Your task to perform on an android device: install app "Adobe Acrobat Reader: Edit PDF" Image 0: 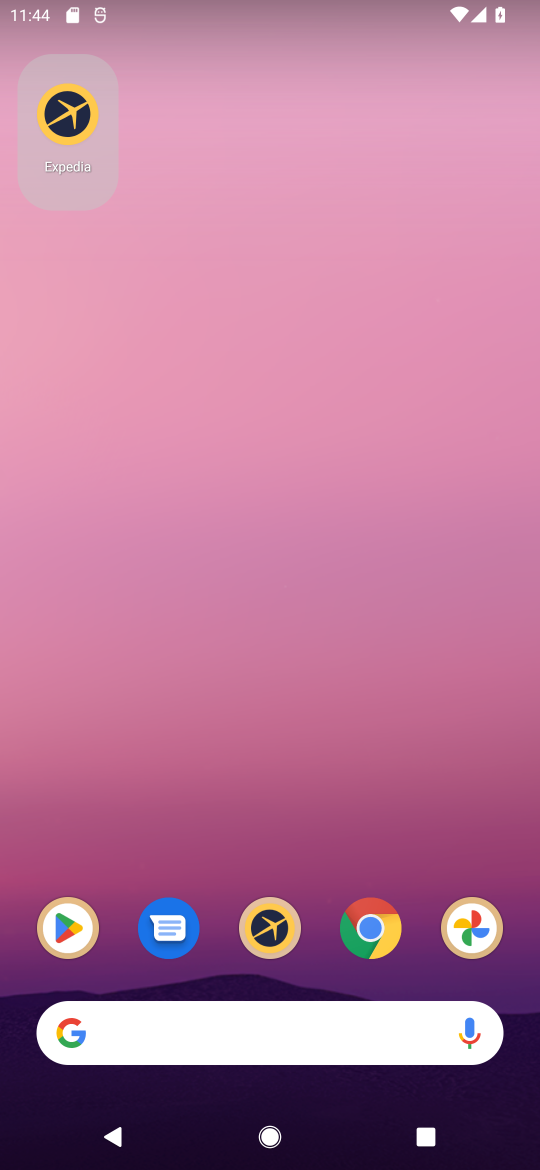
Step 0: drag from (437, 748) to (342, 3)
Your task to perform on an android device: install app "Adobe Acrobat Reader: Edit PDF" Image 1: 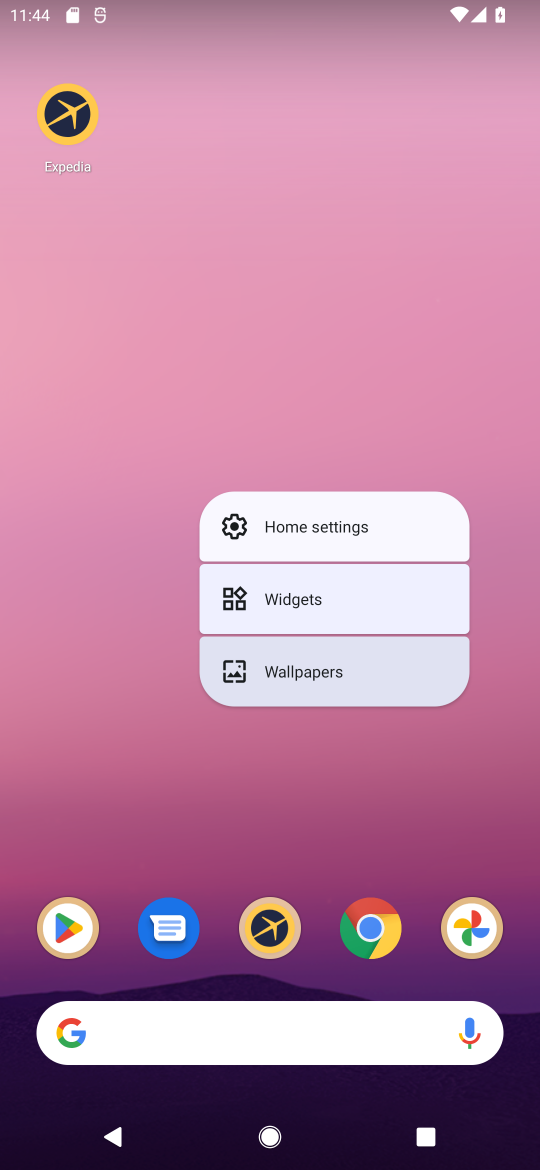
Step 1: click (265, 793)
Your task to perform on an android device: install app "Adobe Acrobat Reader: Edit PDF" Image 2: 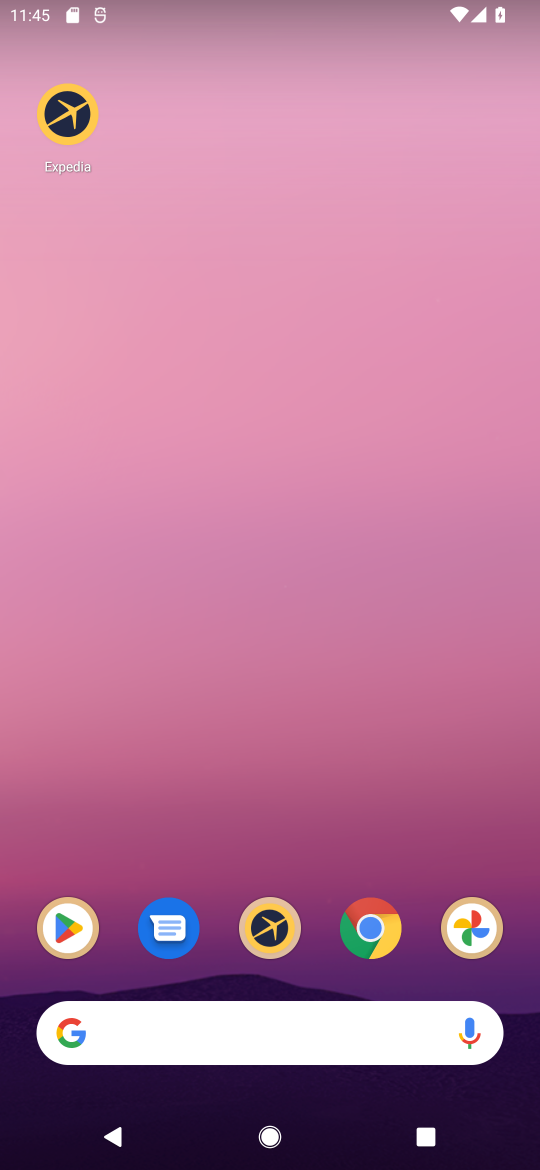
Step 2: drag from (316, 878) to (393, 72)
Your task to perform on an android device: install app "Adobe Acrobat Reader: Edit PDF" Image 3: 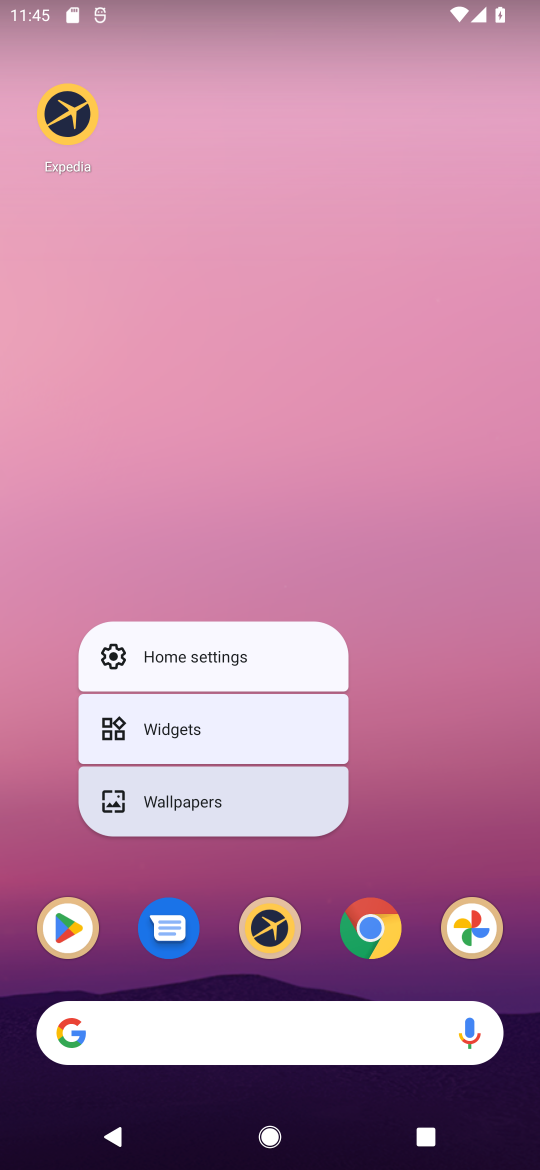
Step 3: click (439, 465)
Your task to perform on an android device: install app "Adobe Acrobat Reader: Edit PDF" Image 4: 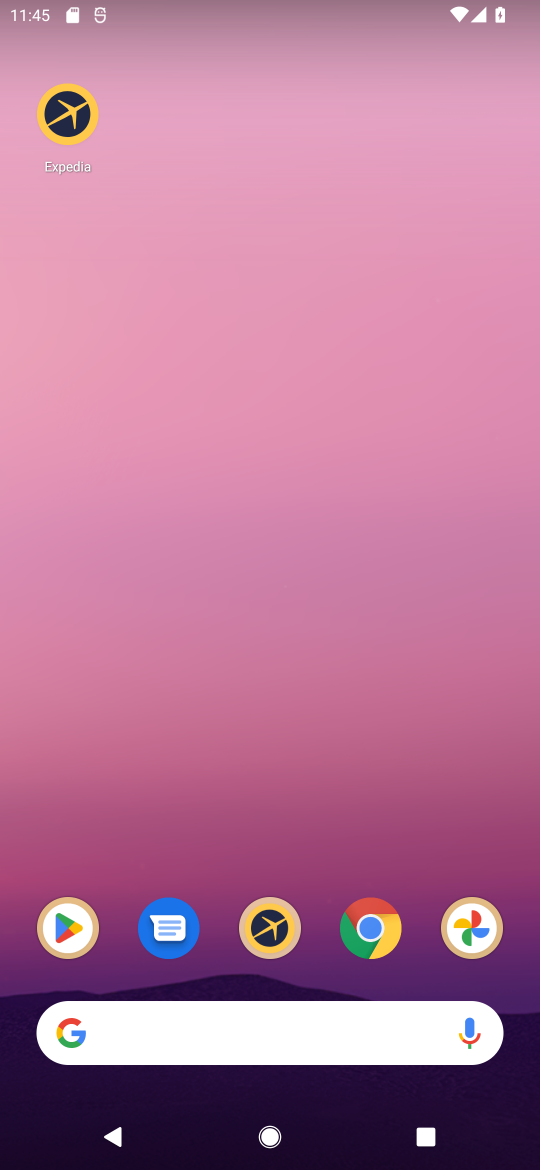
Step 4: drag from (521, 1080) to (441, 127)
Your task to perform on an android device: install app "Adobe Acrobat Reader: Edit PDF" Image 5: 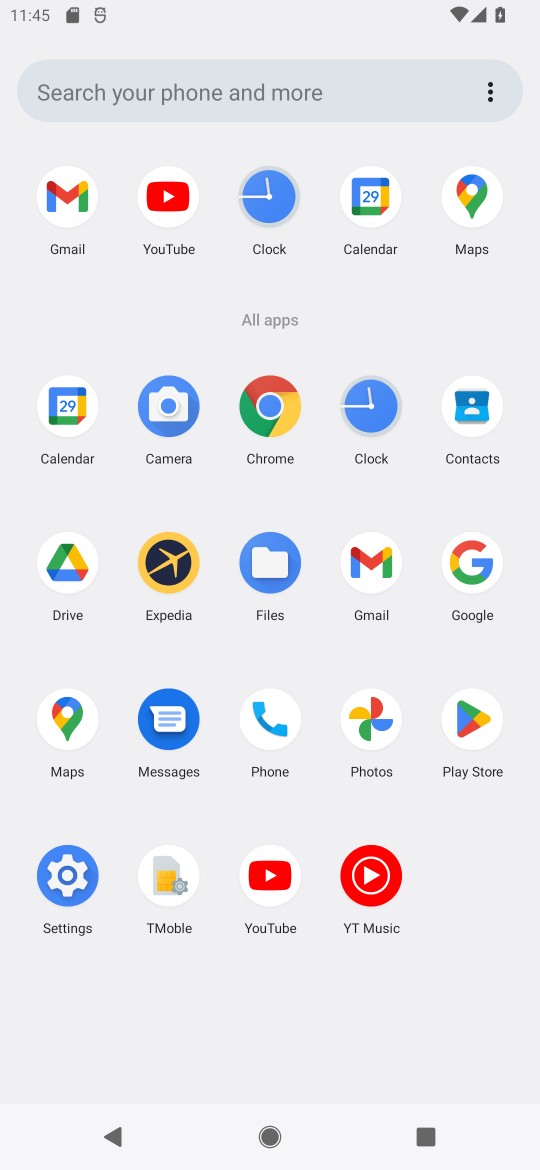
Step 5: click (481, 704)
Your task to perform on an android device: install app "Adobe Acrobat Reader: Edit PDF" Image 6: 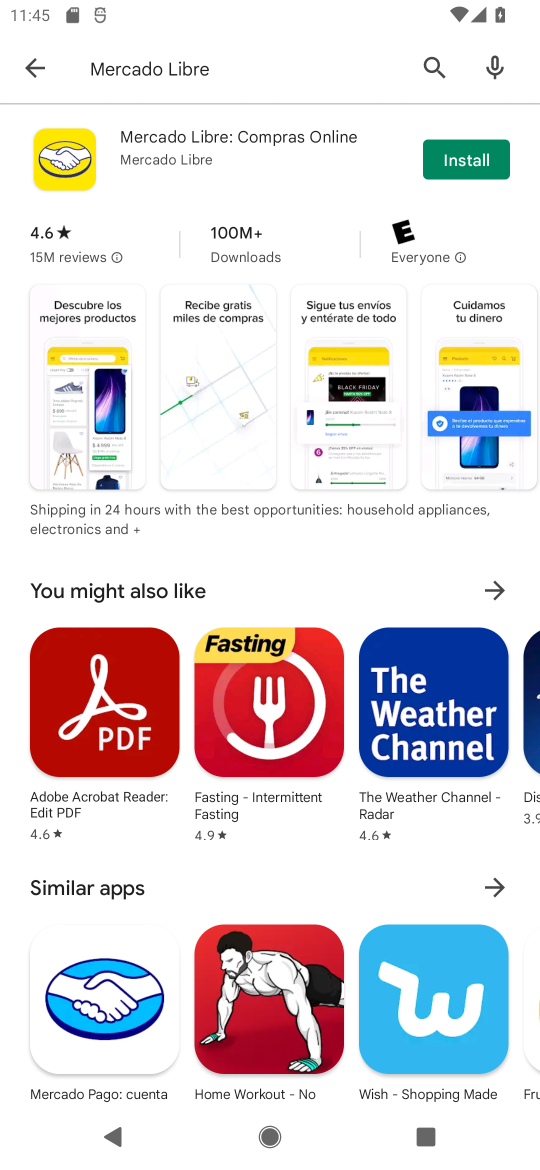
Step 6: click (257, 84)
Your task to perform on an android device: install app "Adobe Acrobat Reader: Edit PDF" Image 7: 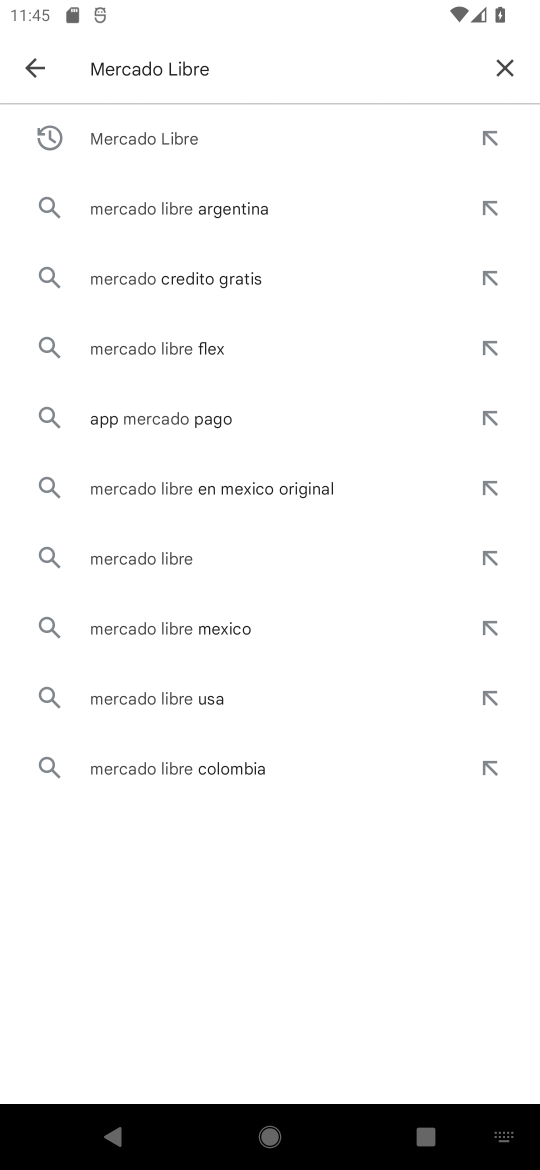
Step 7: click (506, 65)
Your task to perform on an android device: install app "Adobe Acrobat Reader: Edit PDF" Image 8: 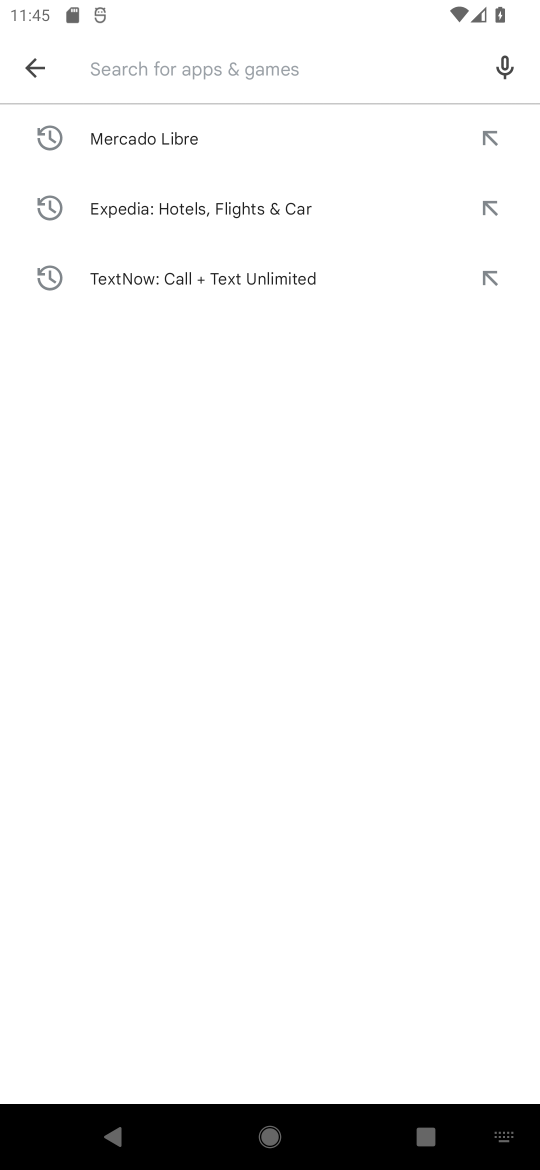
Step 8: type "Adobe Acrobat Reader: Edit PDF"
Your task to perform on an android device: install app "Adobe Acrobat Reader: Edit PDF" Image 9: 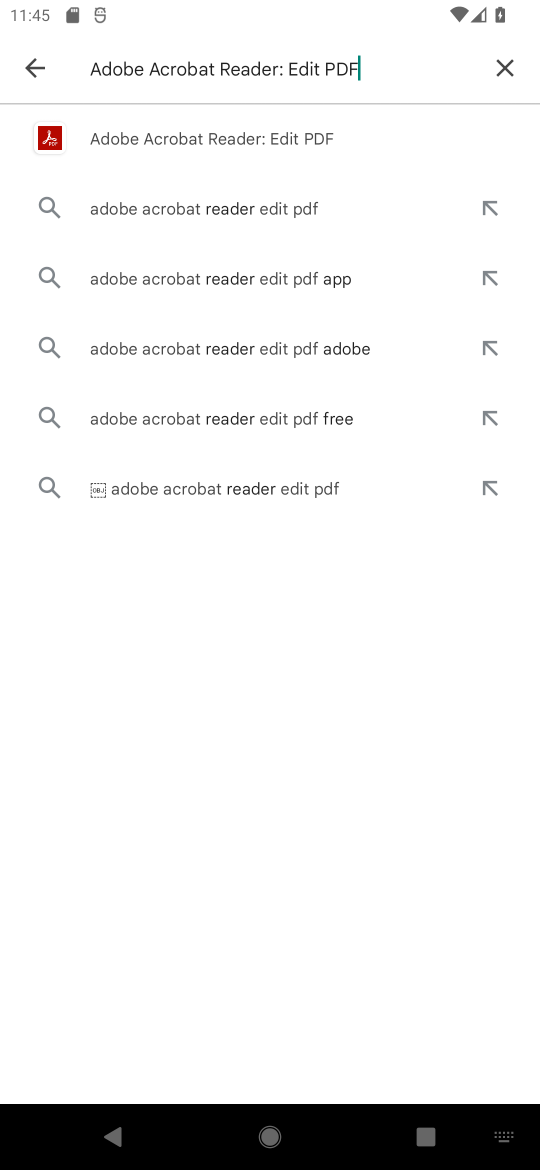
Step 9: press enter
Your task to perform on an android device: install app "Adobe Acrobat Reader: Edit PDF" Image 10: 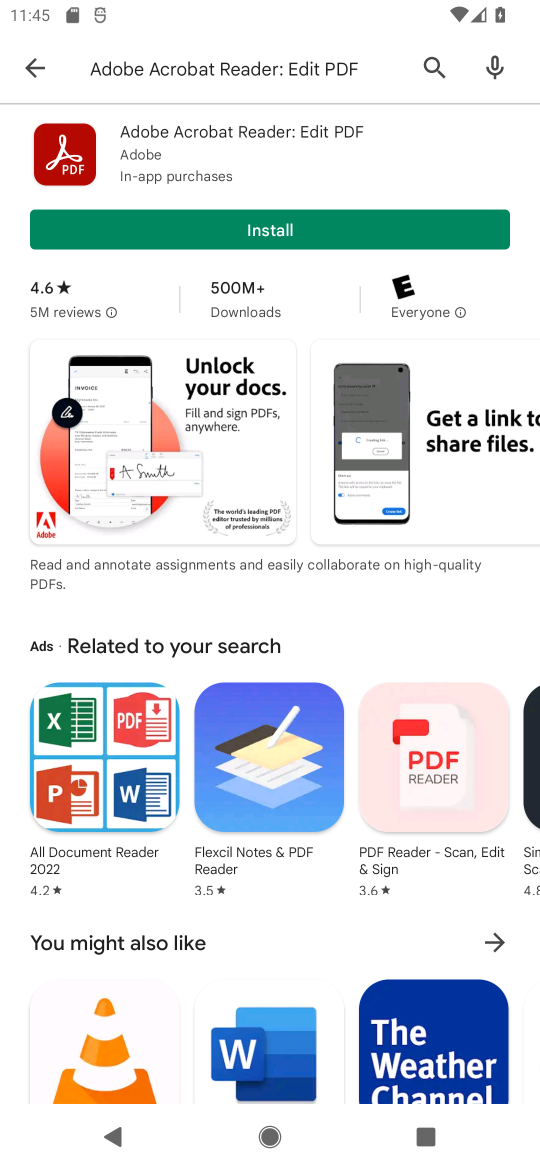
Step 10: click (450, 235)
Your task to perform on an android device: install app "Adobe Acrobat Reader: Edit PDF" Image 11: 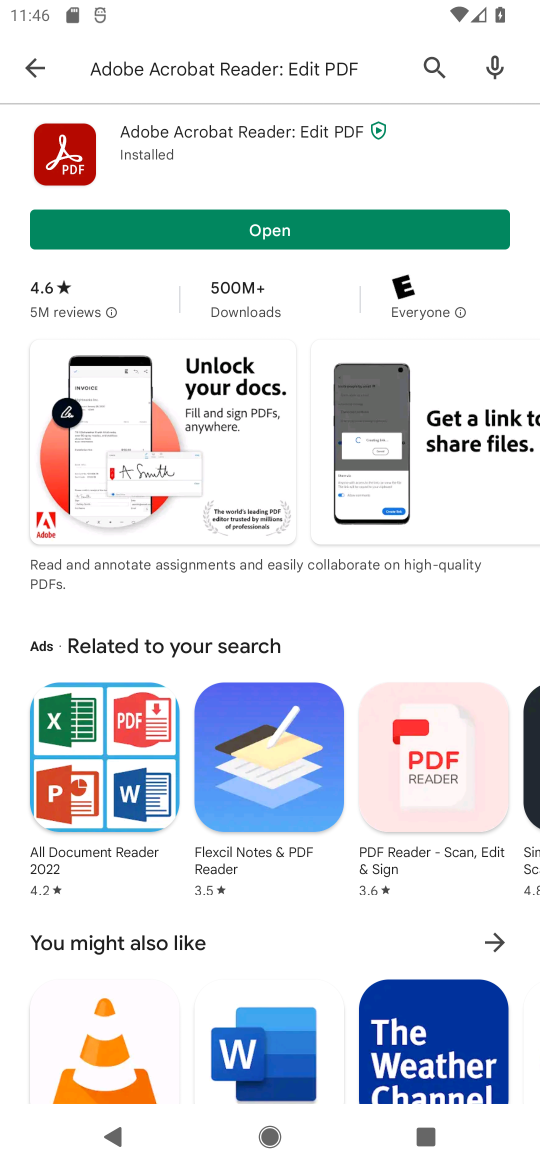
Step 11: task complete